Your task to perform on an android device: open device folders in google photos Image 0: 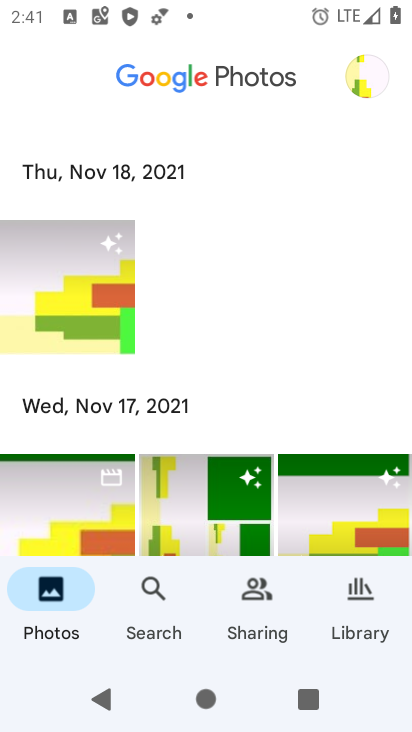
Step 0: press home button
Your task to perform on an android device: open device folders in google photos Image 1: 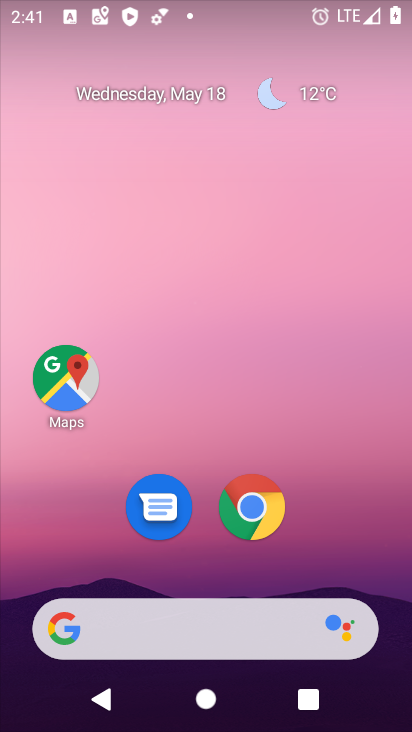
Step 1: drag from (395, 617) to (324, 104)
Your task to perform on an android device: open device folders in google photos Image 2: 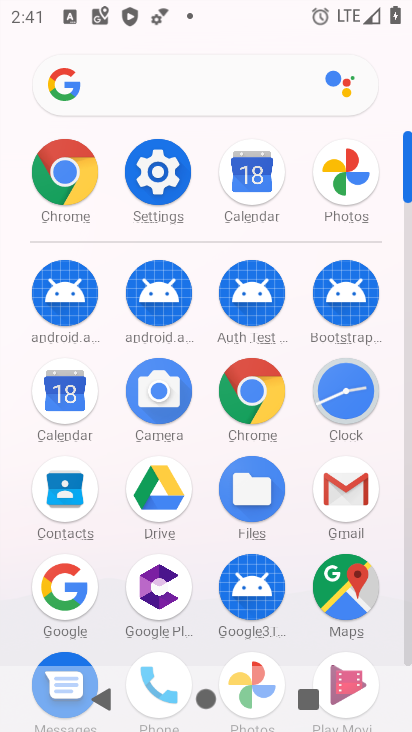
Step 2: click (407, 649)
Your task to perform on an android device: open device folders in google photos Image 3: 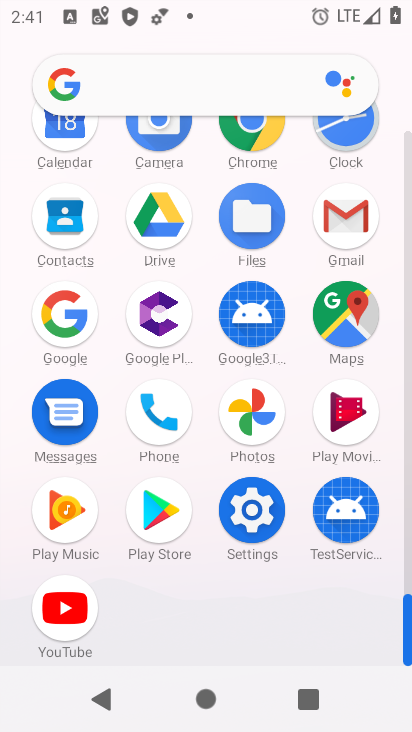
Step 3: click (256, 408)
Your task to perform on an android device: open device folders in google photos Image 4: 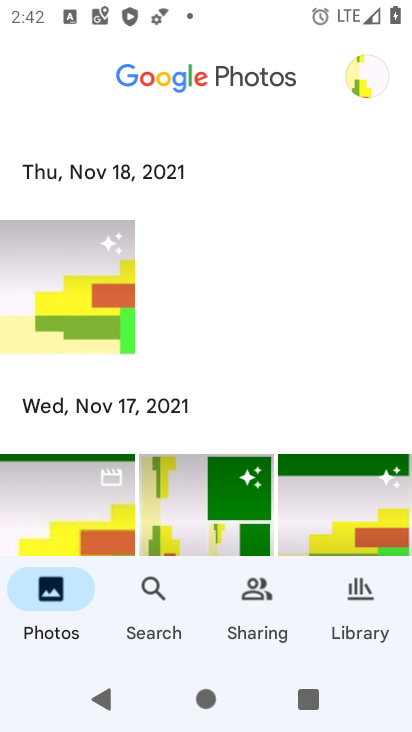
Step 4: task complete